Your task to perform on an android device: turn off smart reply in the gmail app Image 0: 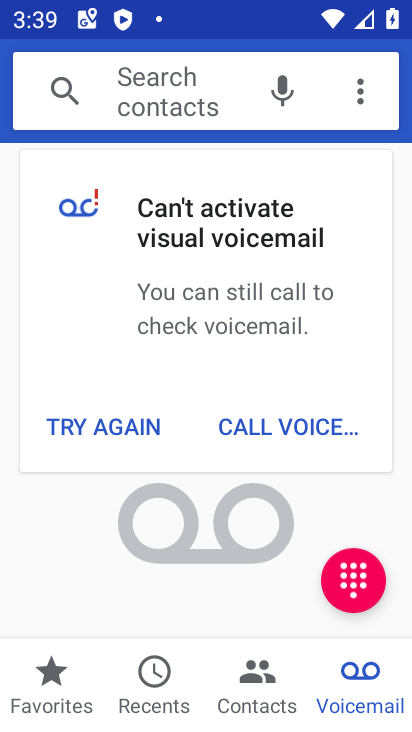
Step 0: press home button
Your task to perform on an android device: turn off smart reply in the gmail app Image 1: 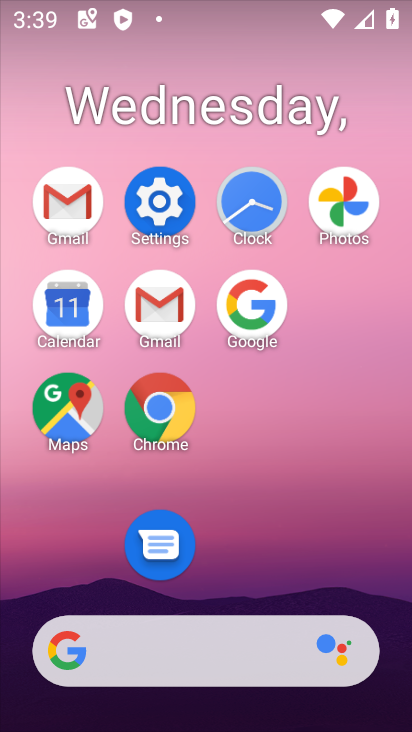
Step 1: click (155, 293)
Your task to perform on an android device: turn off smart reply in the gmail app Image 2: 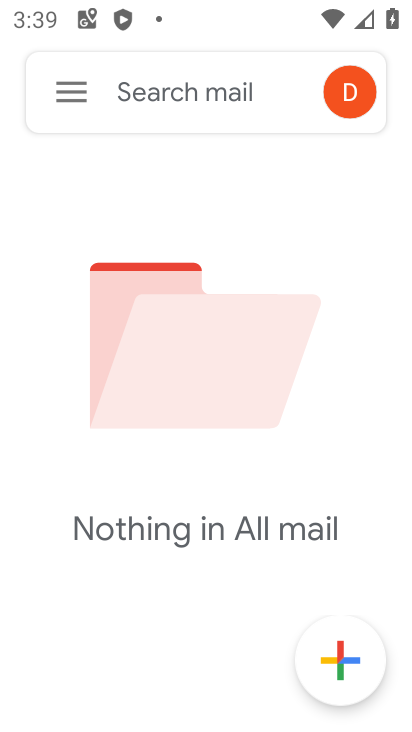
Step 2: click (82, 111)
Your task to perform on an android device: turn off smart reply in the gmail app Image 3: 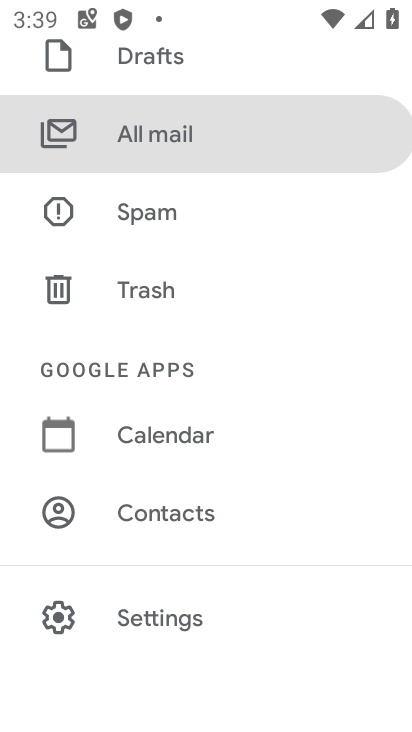
Step 3: drag from (257, 609) to (239, 167)
Your task to perform on an android device: turn off smart reply in the gmail app Image 4: 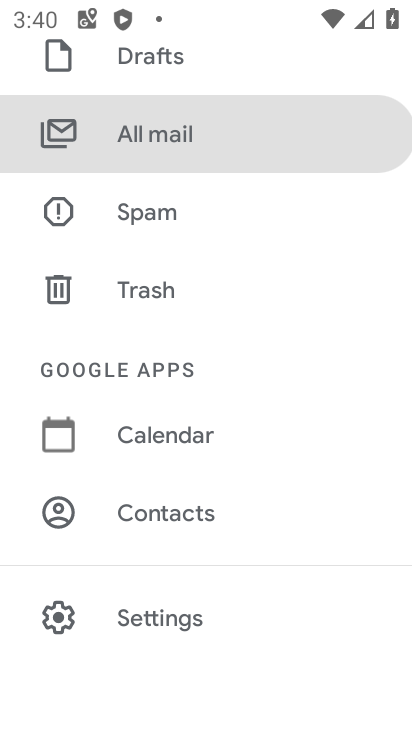
Step 4: click (239, 622)
Your task to perform on an android device: turn off smart reply in the gmail app Image 5: 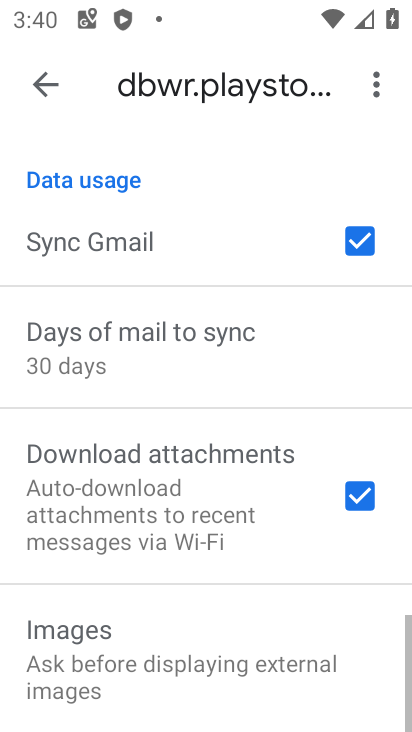
Step 5: task complete